Your task to perform on an android device: turn pop-ups off in chrome Image 0: 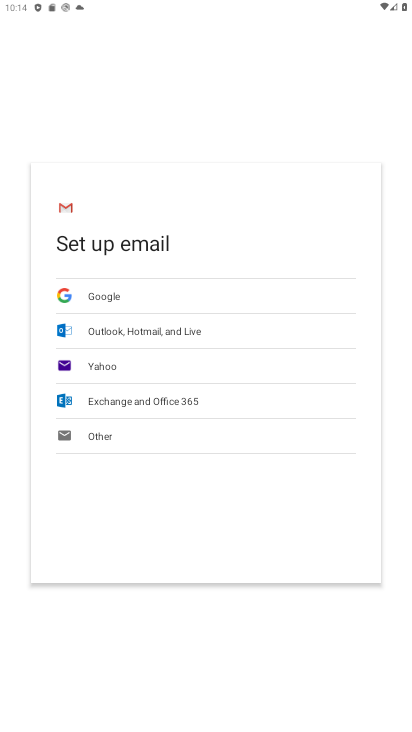
Step 0: task complete